Your task to perform on an android device: Go to internet settings Image 0: 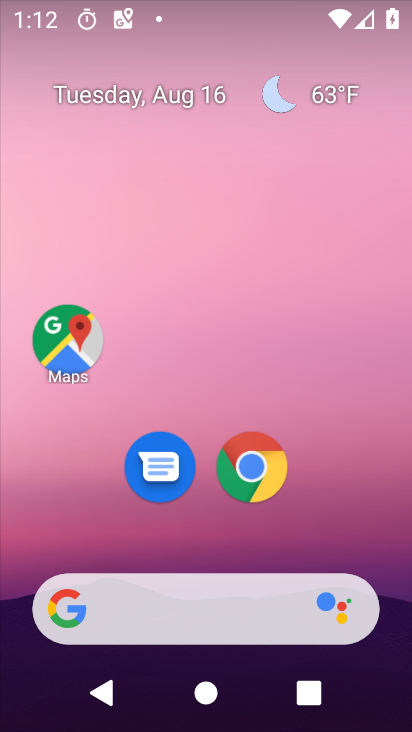
Step 0: press home button
Your task to perform on an android device: Go to internet settings Image 1: 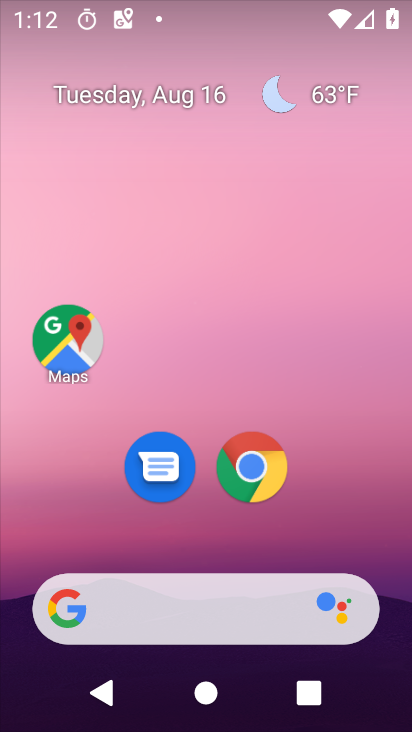
Step 1: drag from (353, 558) to (368, 138)
Your task to perform on an android device: Go to internet settings Image 2: 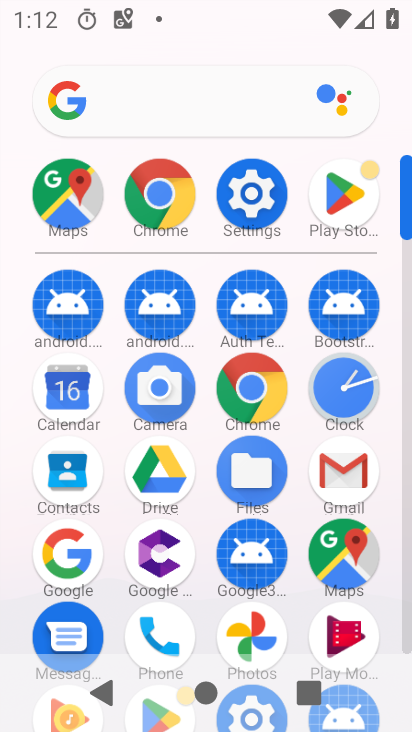
Step 2: click (247, 179)
Your task to perform on an android device: Go to internet settings Image 3: 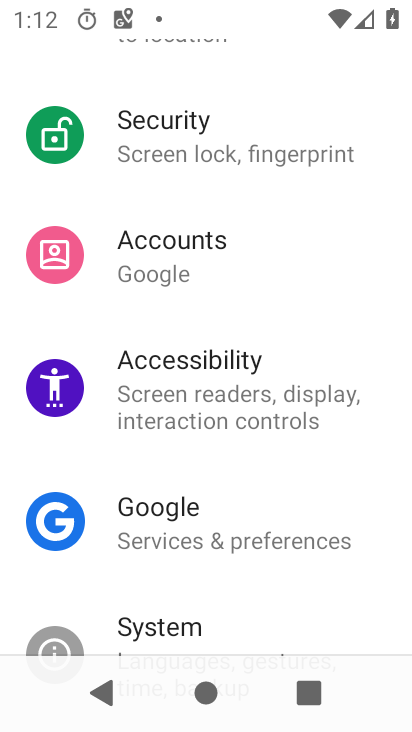
Step 3: drag from (340, 232) to (362, 368)
Your task to perform on an android device: Go to internet settings Image 4: 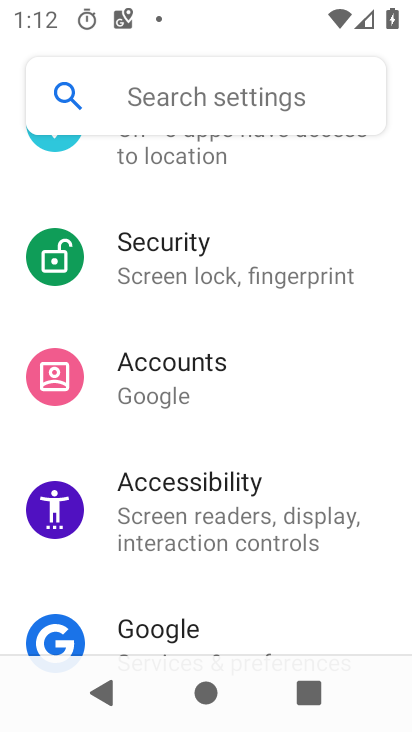
Step 4: drag from (381, 201) to (377, 354)
Your task to perform on an android device: Go to internet settings Image 5: 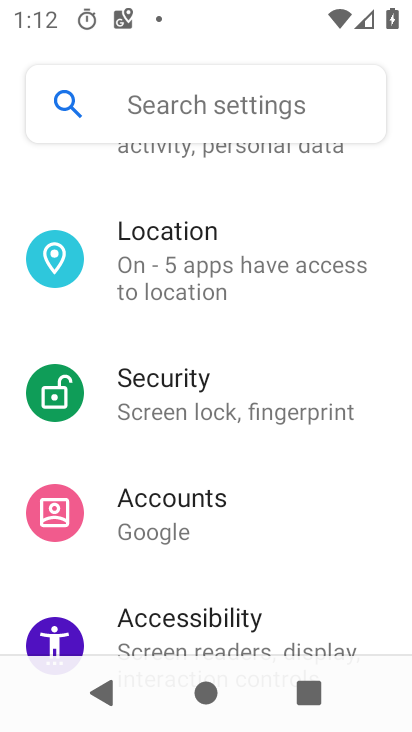
Step 5: drag from (374, 192) to (374, 360)
Your task to perform on an android device: Go to internet settings Image 6: 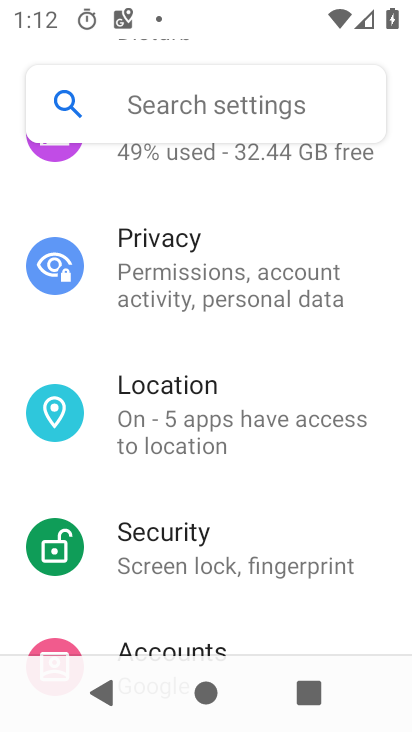
Step 6: drag from (385, 159) to (377, 340)
Your task to perform on an android device: Go to internet settings Image 7: 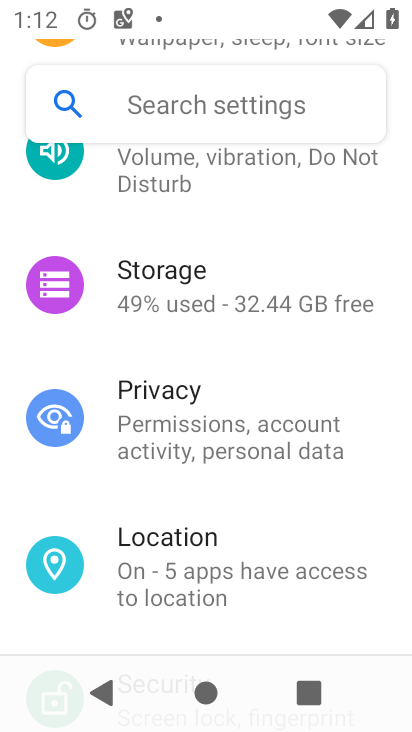
Step 7: drag from (391, 172) to (381, 357)
Your task to perform on an android device: Go to internet settings Image 8: 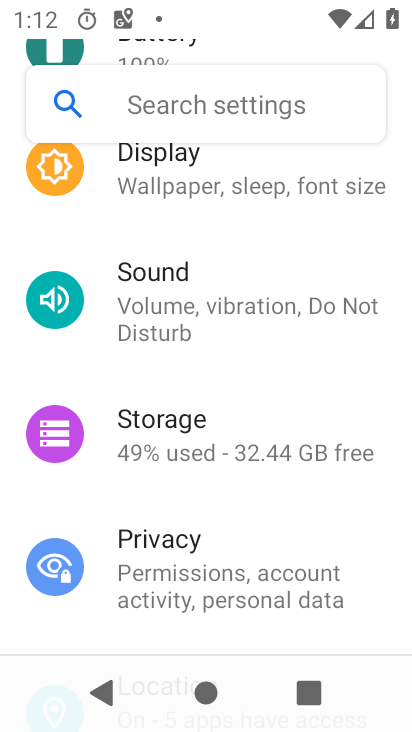
Step 8: drag from (394, 150) to (389, 394)
Your task to perform on an android device: Go to internet settings Image 9: 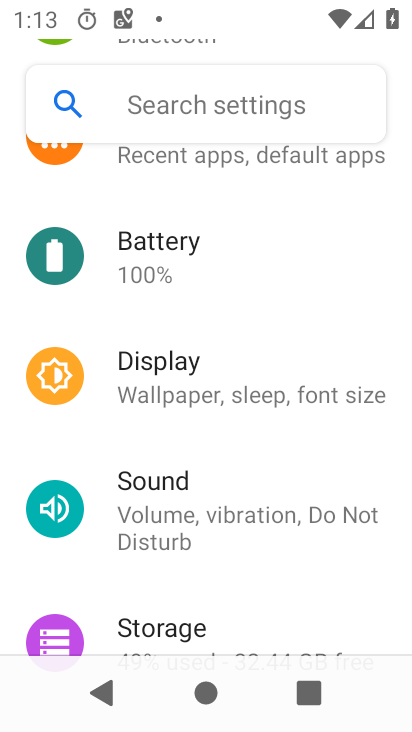
Step 9: drag from (376, 190) to (374, 417)
Your task to perform on an android device: Go to internet settings Image 10: 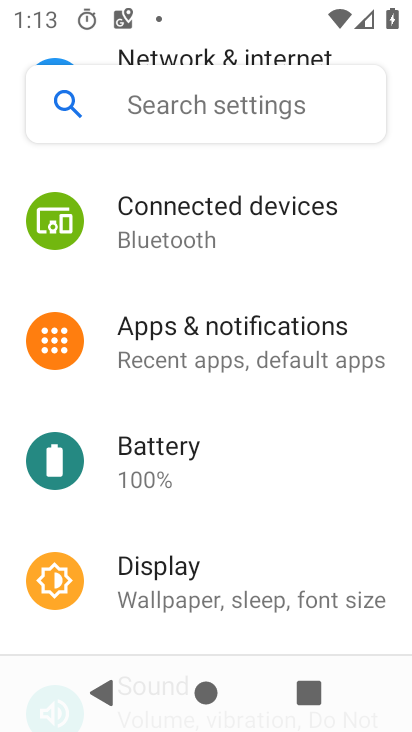
Step 10: drag from (393, 143) to (374, 379)
Your task to perform on an android device: Go to internet settings Image 11: 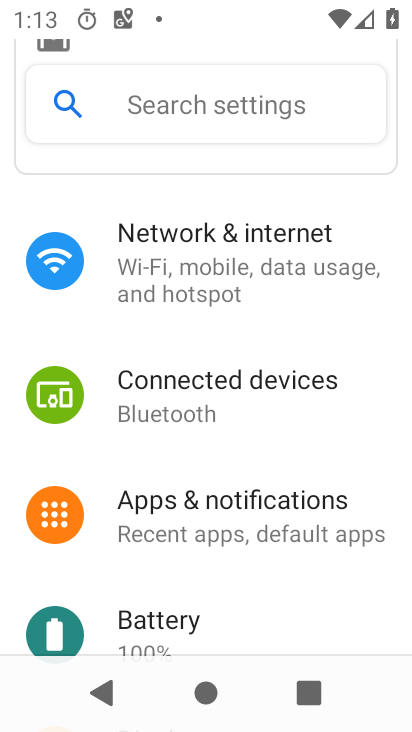
Step 11: drag from (382, 185) to (361, 445)
Your task to perform on an android device: Go to internet settings Image 12: 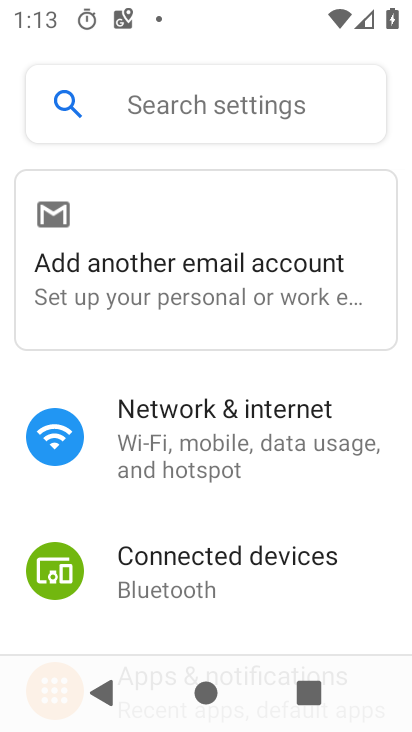
Step 12: click (274, 437)
Your task to perform on an android device: Go to internet settings Image 13: 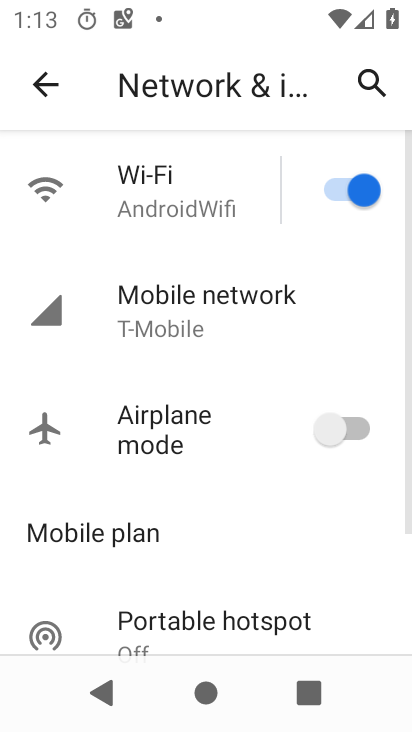
Step 13: task complete